Your task to perform on an android device: Open location settings Image 0: 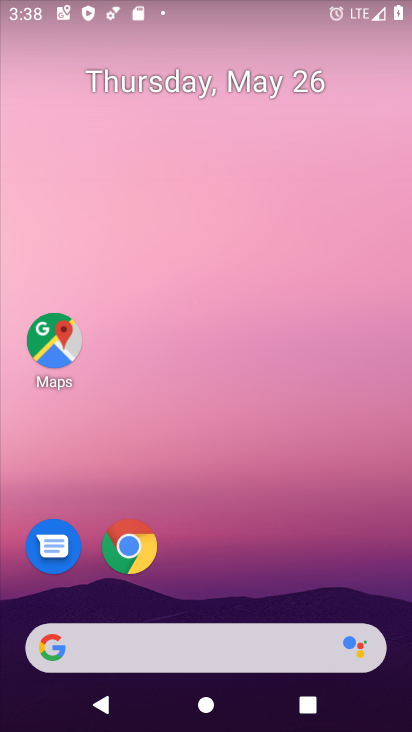
Step 0: drag from (232, 539) to (274, 69)
Your task to perform on an android device: Open location settings Image 1: 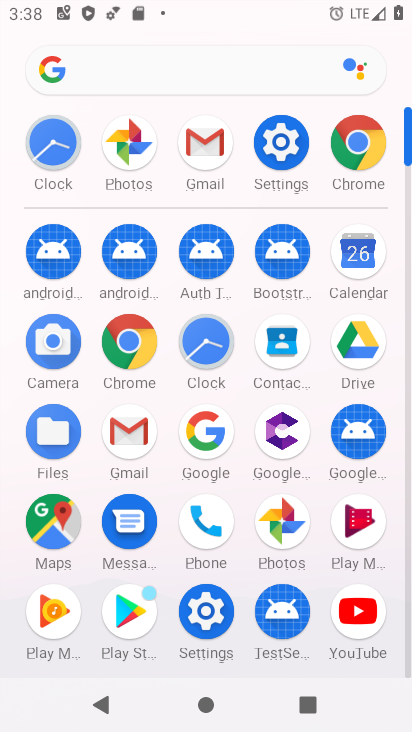
Step 1: click (277, 139)
Your task to perform on an android device: Open location settings Image 2: 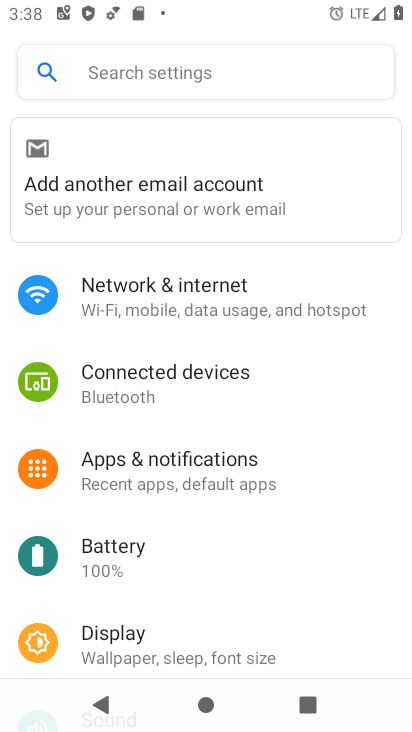
Step 2: drag from (142, 620) to (190, 219)
Your task to perform on an android device: Open location settings Image 3: 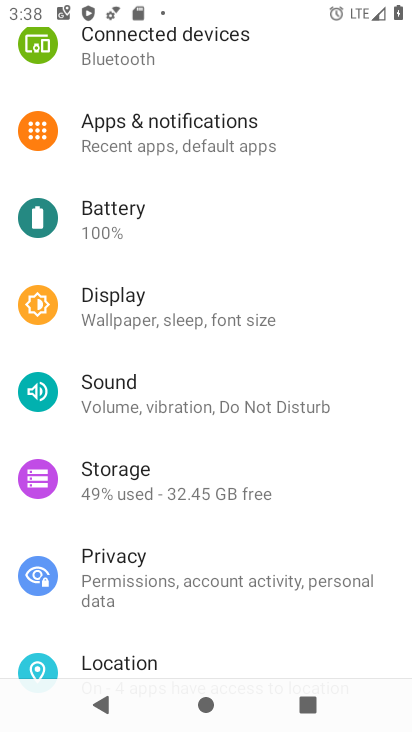
Step 3: click (154, 656)
Your task to perform on an android device: Open location settings Image 4: 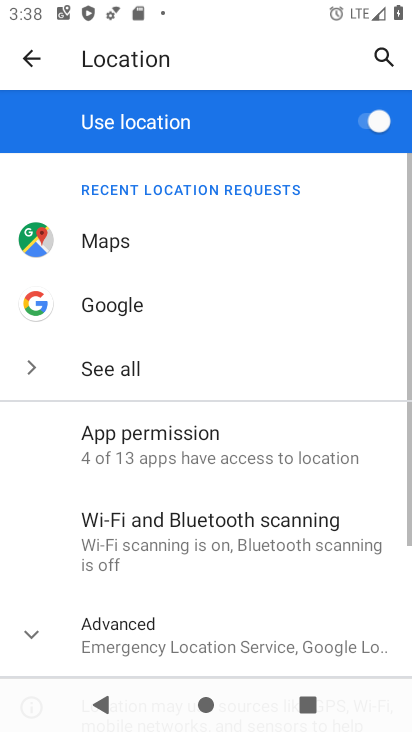
Step 4: task complete